Your task to perform on an android device: turn on improve location accuracy Image 0: 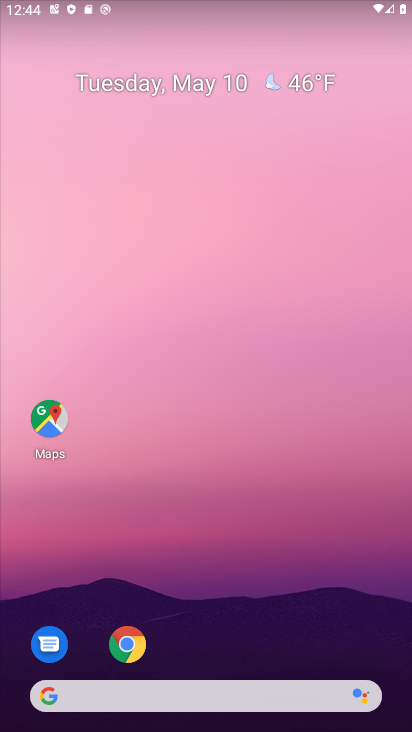
Step 0: drag from (230, 631) to (250, 223)
Your task to perform on an android device: turn on improve location accuracy Image 1: 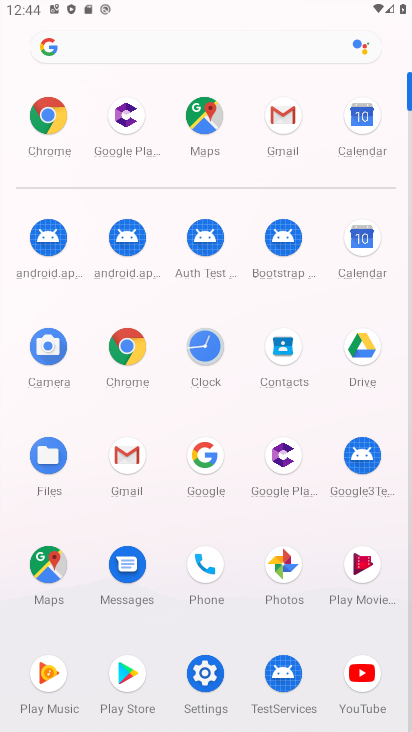
Step 1: click (214, 676)
Your task to perform on an android device: turn on improve location accuracy Image 2: 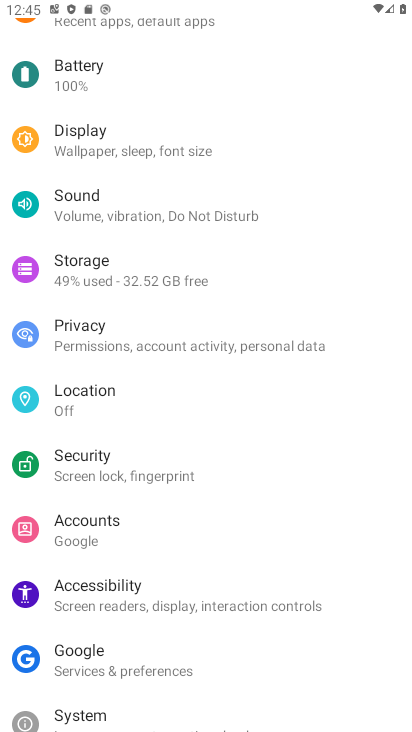
Step 2: click (126, 420)
Your task to perform on an android device: turn on improve location accuracy Image 3: 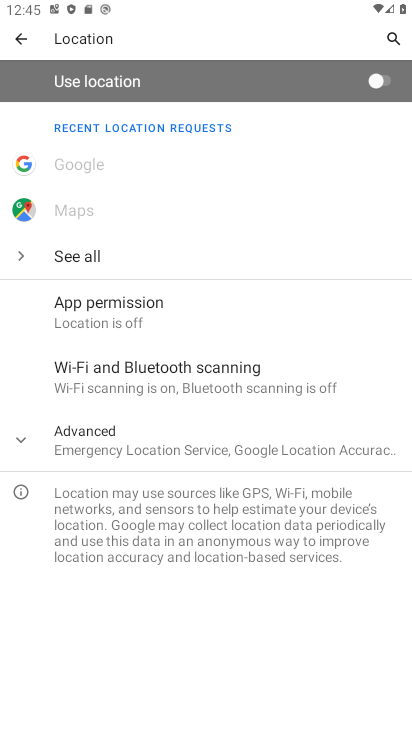
Step 3: click (176, 450)
Your task to perform on an android device: turn on improve location accuracy Image 4: 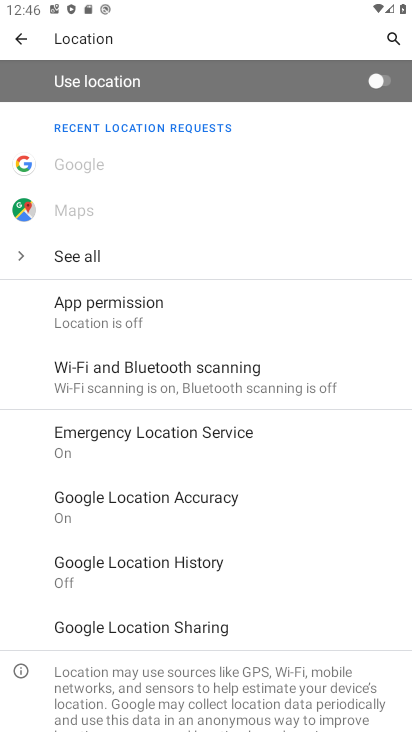
Step 4: click (207, 510)
Your task to perform on an android device: turn on improve location accuracy Image 5: 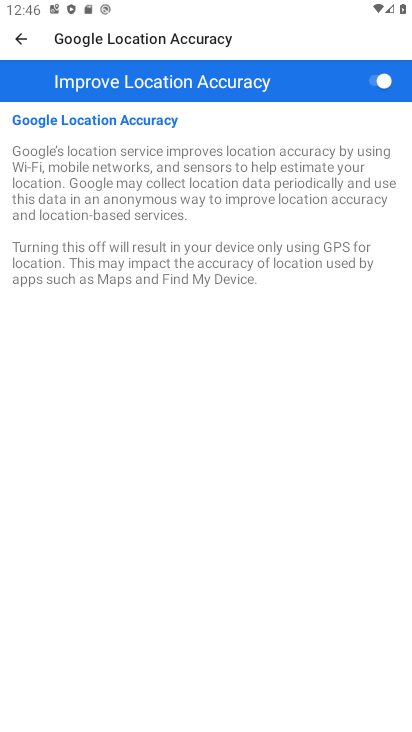
Step 5: task complete